Your task to perform on an android device: change notification settings in the gmail app Image 0: 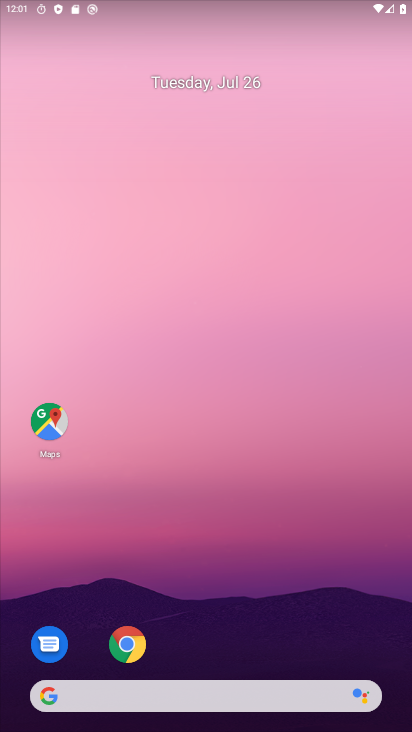
Step 0: drag from (222, 678) to (271, 12)
Your task to perform on an android device: change notification settings in the gmail app Image 1: 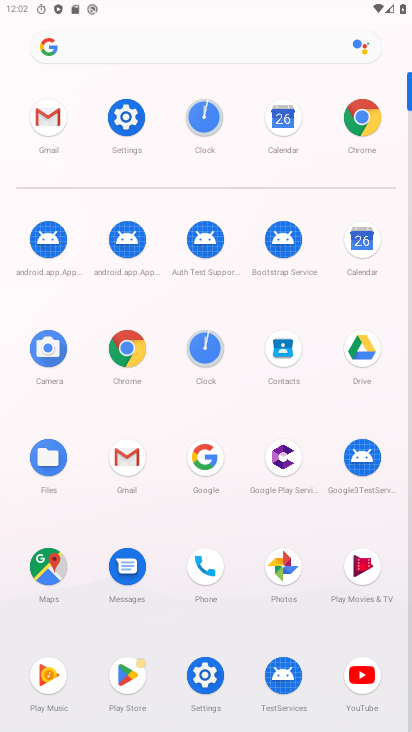
Step 1: click (44, 129)
Your task to perform on an android device: change notification settings in the gmail app Image 2: 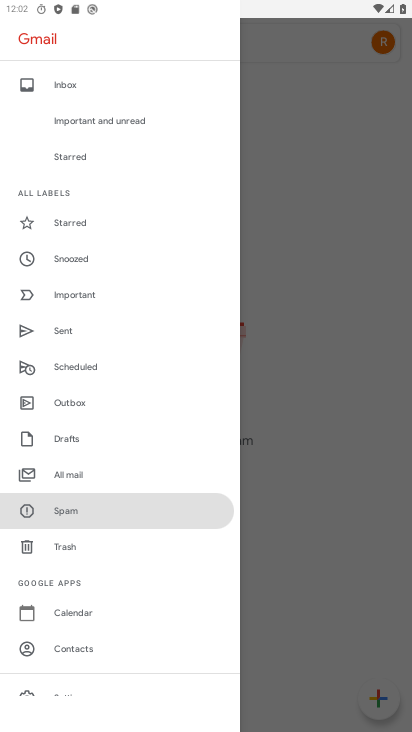
Step 2: drag from (122, 206) to (89, 621)
Your task to perform on an android device: change notification settings in the gmail app Image 3: 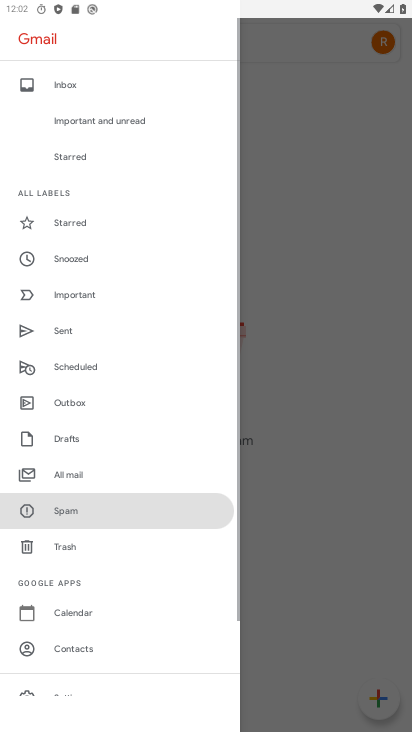
Step 3: drag from (127, 630) to (159, 123)
Your task to perform on an android device: change notification settings in the gmail app Image 4: 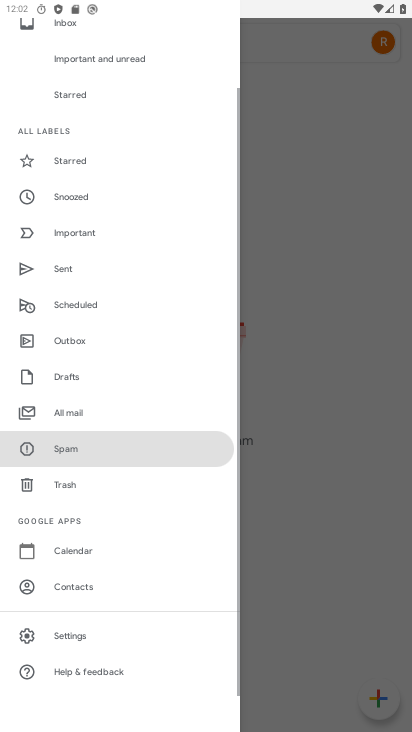
Step 4: click (65, 640)
Your task to perform on an android device: change notification settings in the gmail app Image 5: 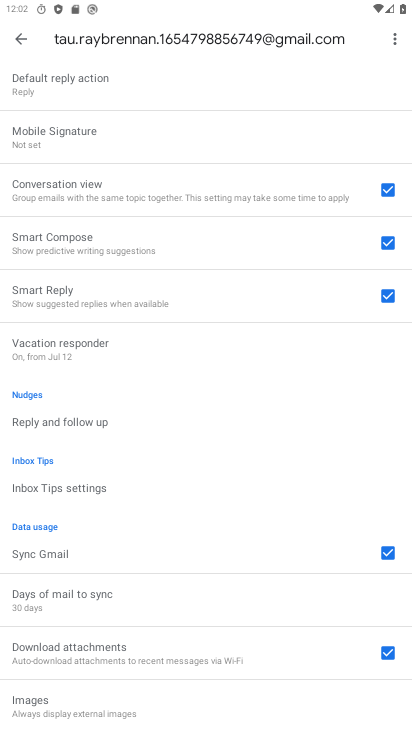
Step 5: drag from (171, 118) to (168, 674)
Your task to perform on an android device: change notification settings in the gmail app Image 6: 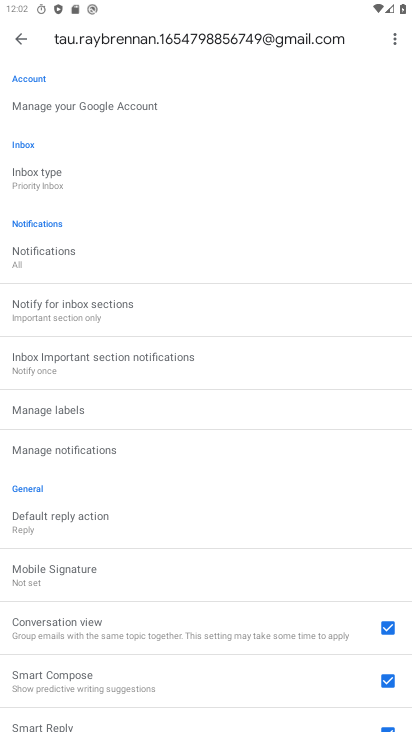
Step 6: click (53, 259)
Your task to perform on an android device: change notification settings in the gmail app Image 7: 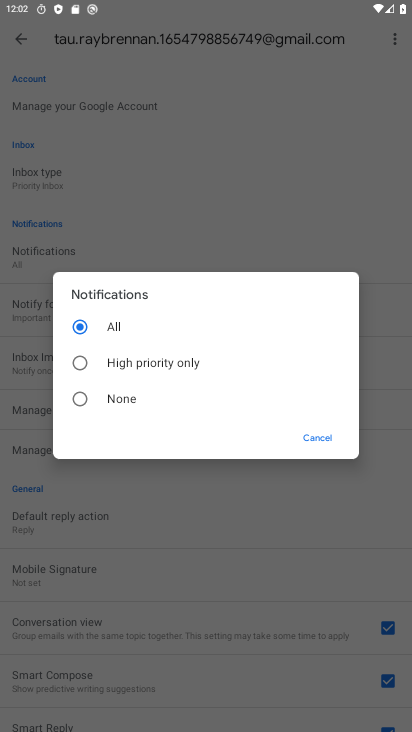
Step 7: click (117, 359)
Your task to perform on an android device: change notification settings in the gmail app Image 8: 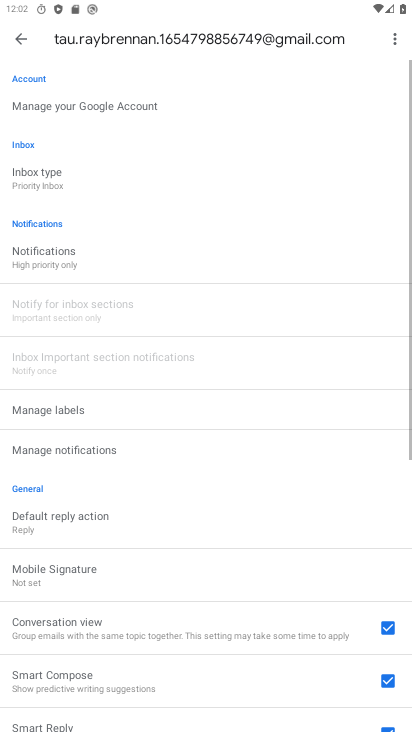
Step 8: task complete